Your task to perform on an android device: toggle data saver in the chrome app Image 0: 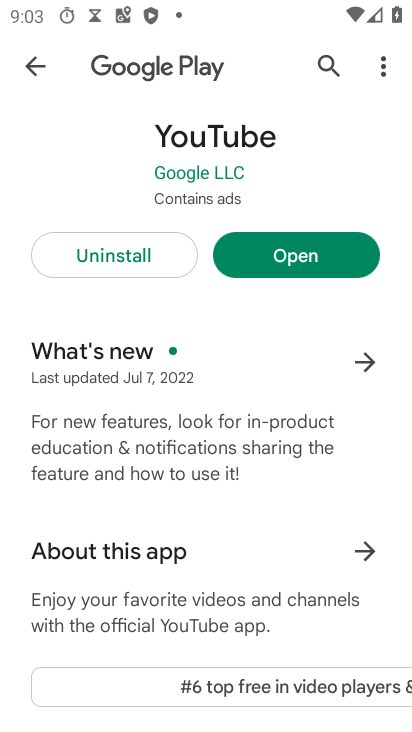
Step 0: press home button
Your task to perform on an android device: toggle data saver in the chrome app Image 1: 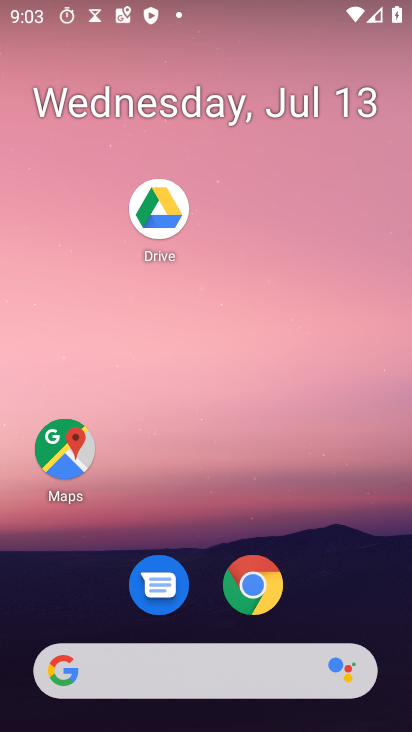
Step 1: click (258, 587)
Your task to perform on an android device: toggle data saver in the chrome app Image 2: 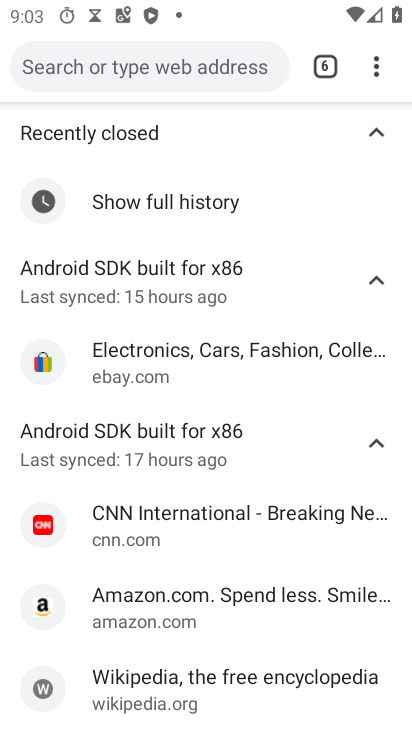
Step 2: drag from (373, 75) to (224, 559)
Your task to perform on an android device: toggle data saver in the chrome app Image 3: 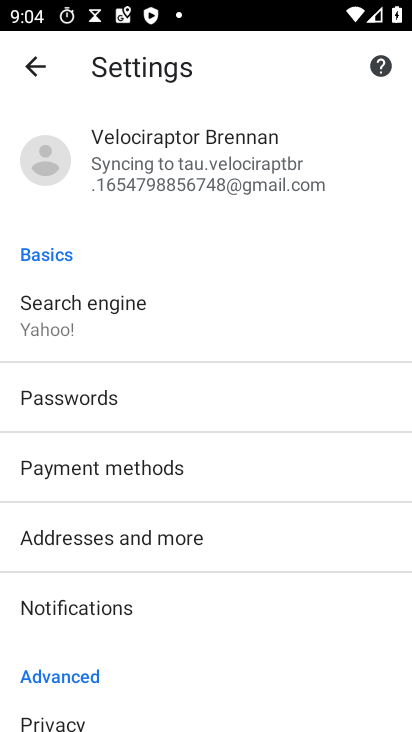
Step 3: drag from (179, 652) to (280, 232)
Your task to perform on an android device: toggle data saver in the chrome app Image 4: 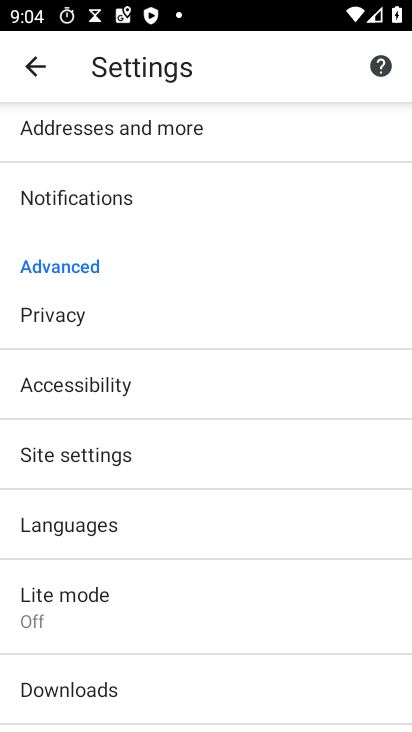
Step 4: click (87, 609)
Your task to perform on an android device: toggle data saver in the chrome app Image 5: 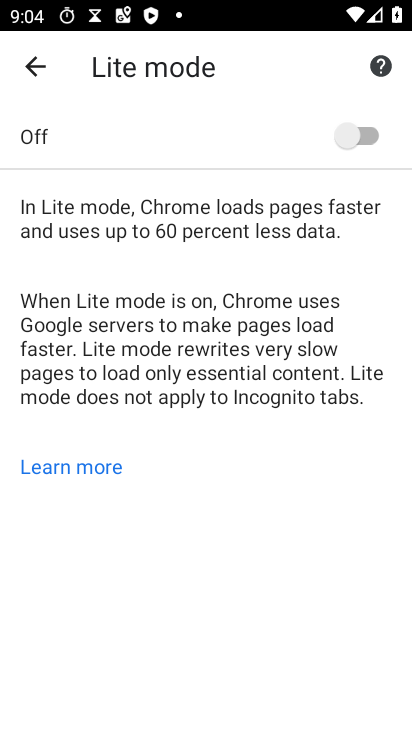
Step 5: click (373, 128)
Your task to perform on an android device: toggle data saver in the chrome app Image 6: 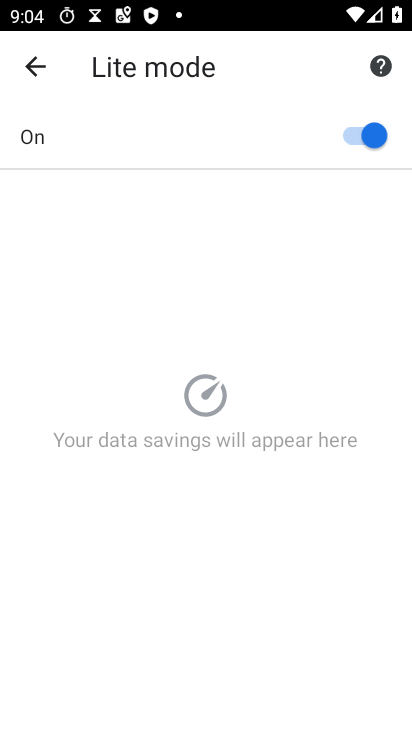
Step 6: task complete